Your task to perform on an android device: turn on sleep mode Image 0: 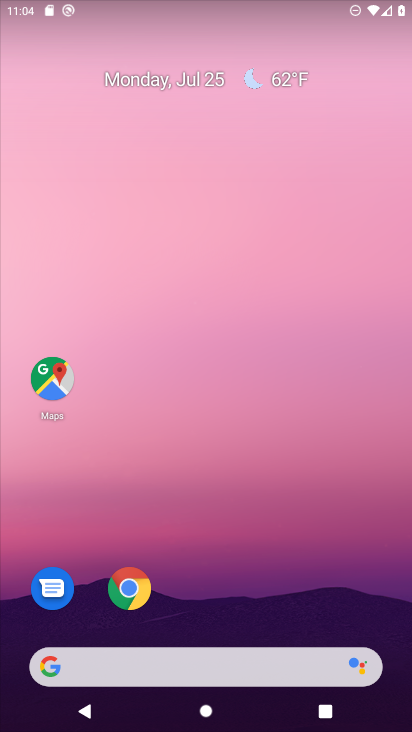
Step 0: drag from (29, 444) to (152, 114)
Your task to perform on an android device: turn on sleep mode Image 1: 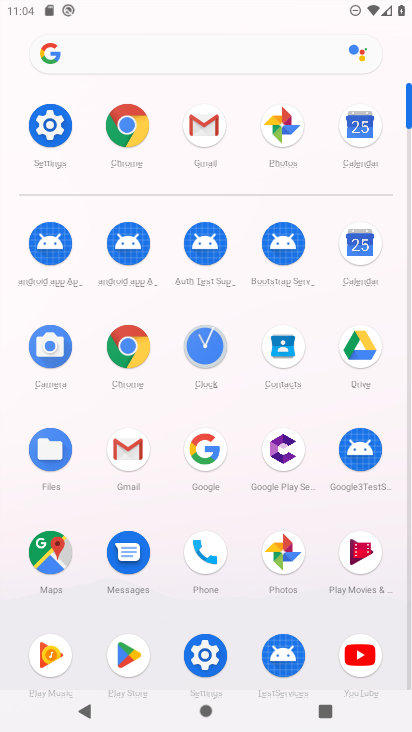
Step 1: click (52, 118)
Your task to perform on an android device: turn on sleep mode Image 2: 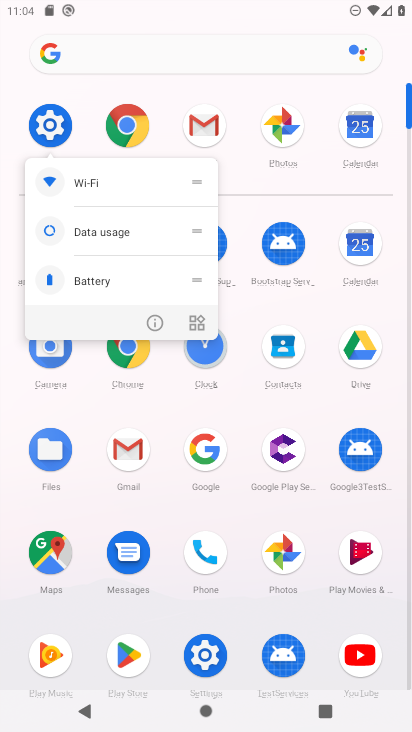
Step 2: click (52, 118)
Your task to perform on an android device: turn on sleep mode Image 3: 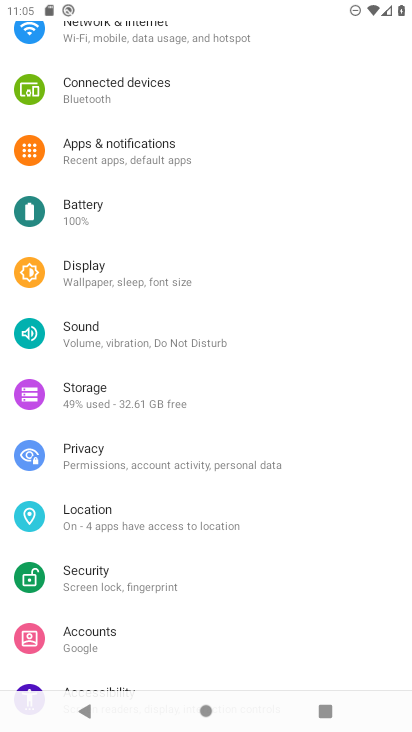
Step 3: click (113, 282)
Your task to perform on an android device: turn on sleep mode Image 4: 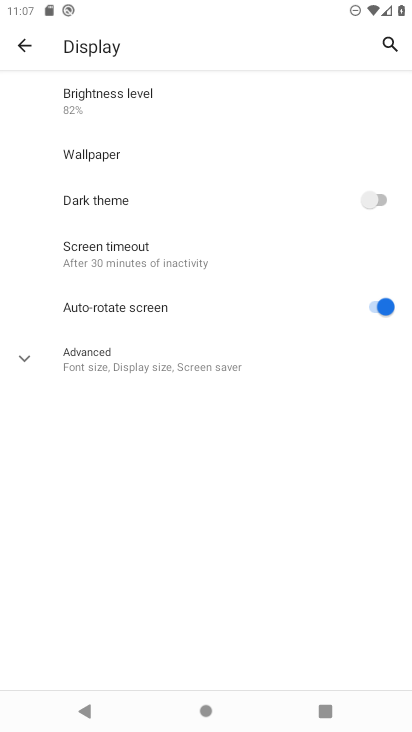
Step 4: task complete